Your task to perform on an android device: see creations saved in the google photos Image 0: 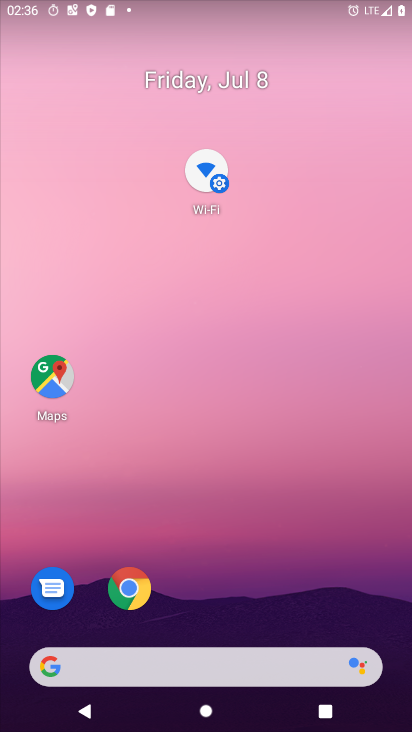
Step 0: drag from (183, 623) to (101, 172)
Your task to perform on an android device: see creations saved in the google photos Image 1: 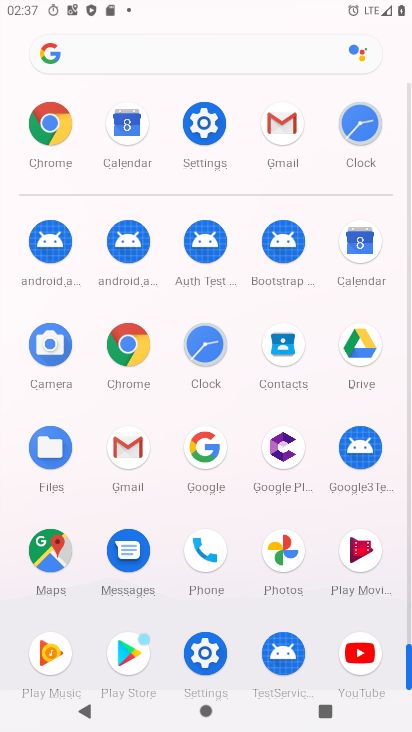
Step 1: click (265, 543)
Your task to perform on an android device: see creations saved in the google photos Image 2: 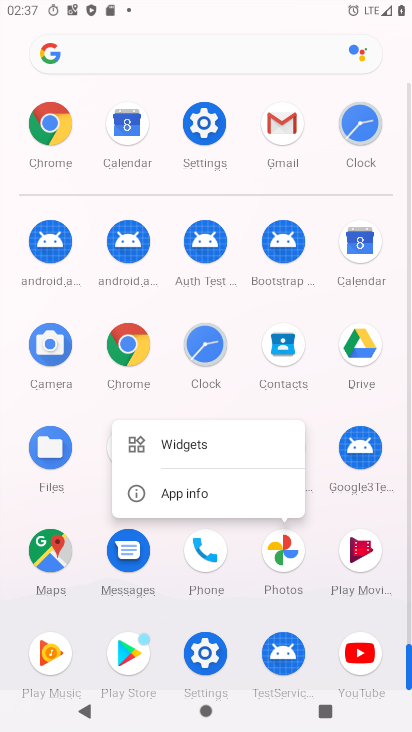
Step 2: click (190, 495)
Your task to perform on an android device: see creations saved in the google photos Image 3: 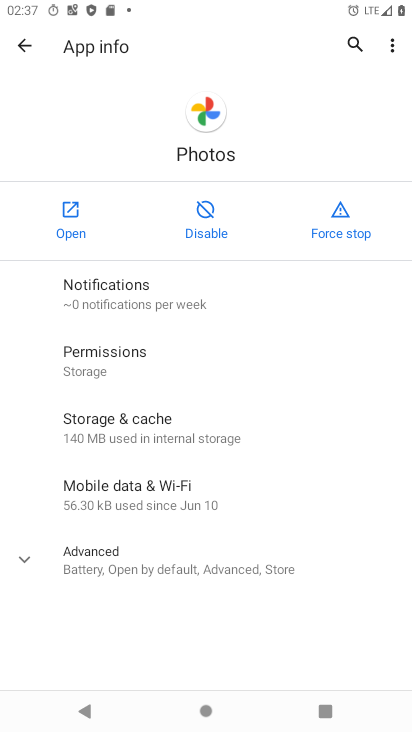
Step 3: click (70, 211)
Your task to perform on an android device: see creations saved in the google photos Image 4: 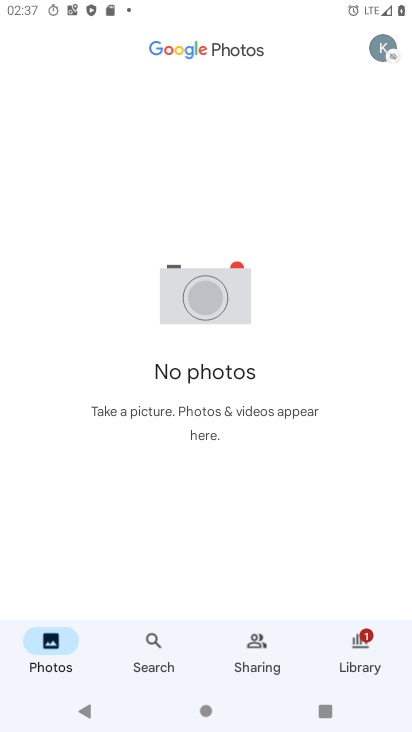
Step 4: drag from (193, 547) to (235, 345)
Your task to perform on an android device: see creations saved in the google photos Image 5: 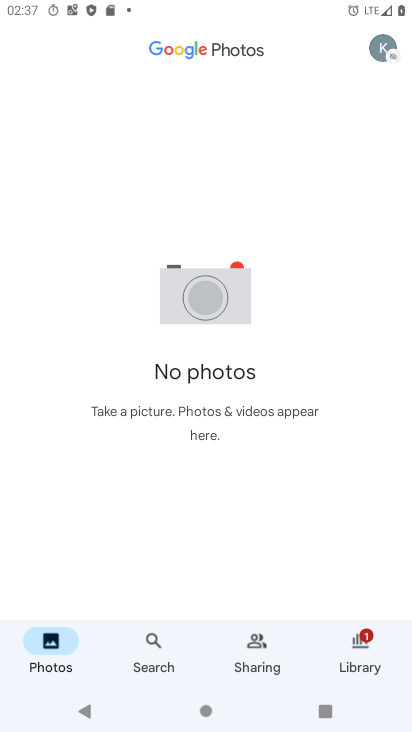
Step 5: click (167, 667)
Your task to perform on an android device: see creations saved in the google photos Image 6: 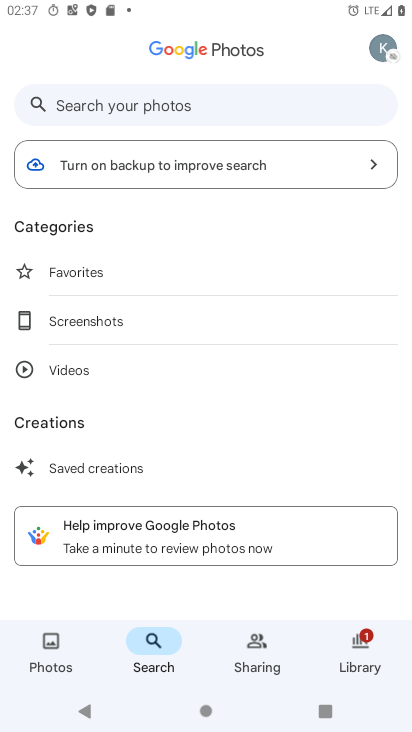
Step 6: click (141, 163)
Your task to perform on an android device: see creations saved in the google photos Image 7: 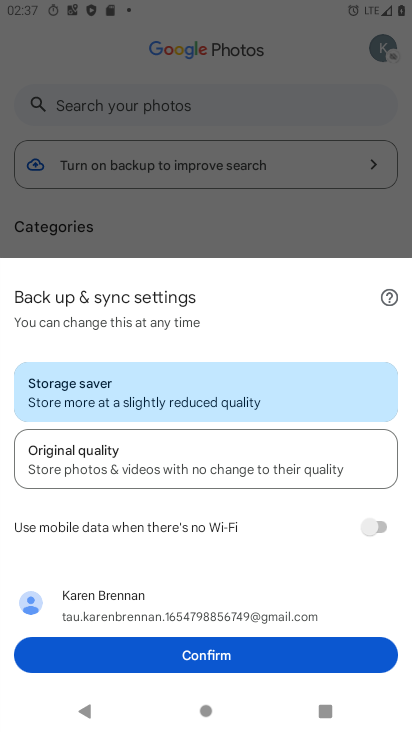
Step 7: click (137, 275)
Your task to perform on an android device: see creations saved in the google photos Image 8: 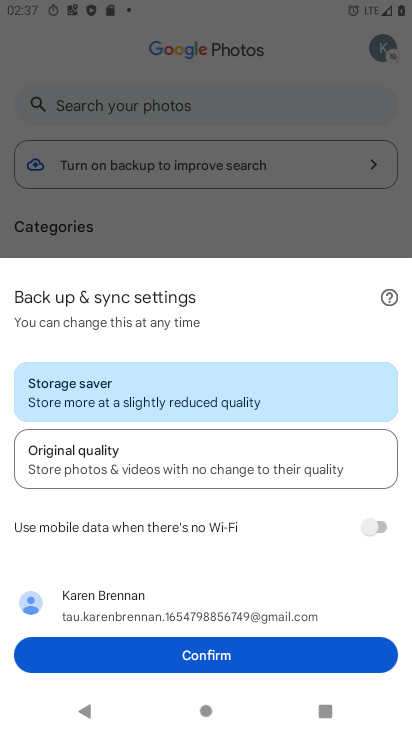
Step 8: click (101, 250)
Your task to perform on an android device: see creations saved in the google photos Image 9: 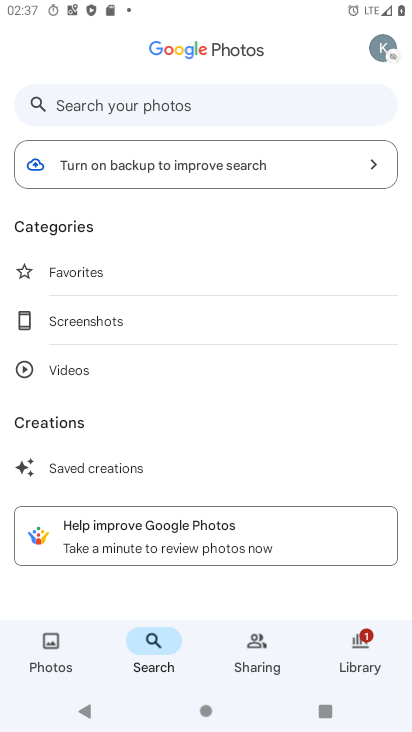
Step 9: click (57, 470)
Your task to perform on an android device: see creations saved in the google photos Image 10: 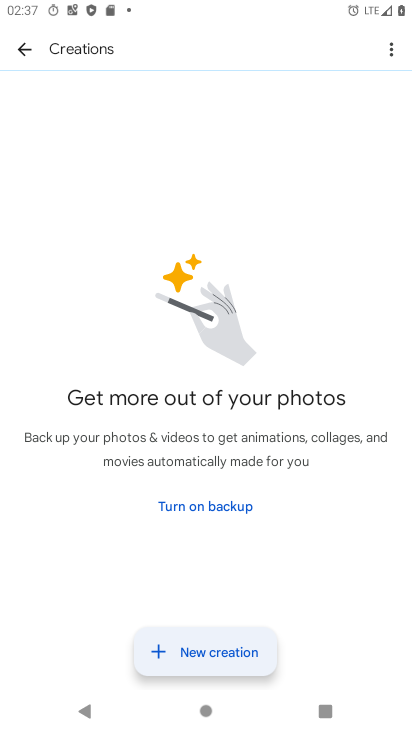
Step 10: task complete